Your task to perform on an android device: Go to privacy settings Image 0: 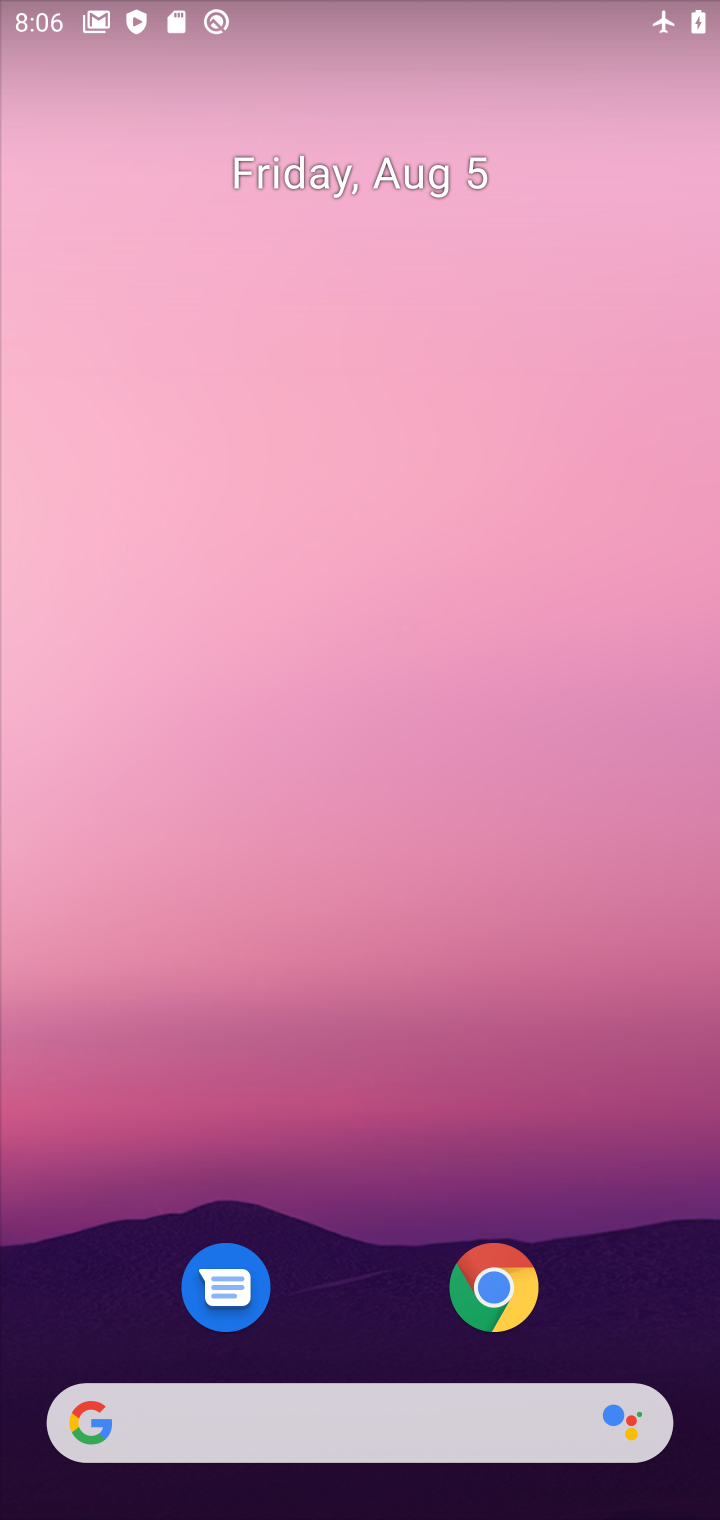
Step 0: drag from (403, 1081) to (367, 241)
Your task to perform on an android device: Go to privacy settings Image 1: 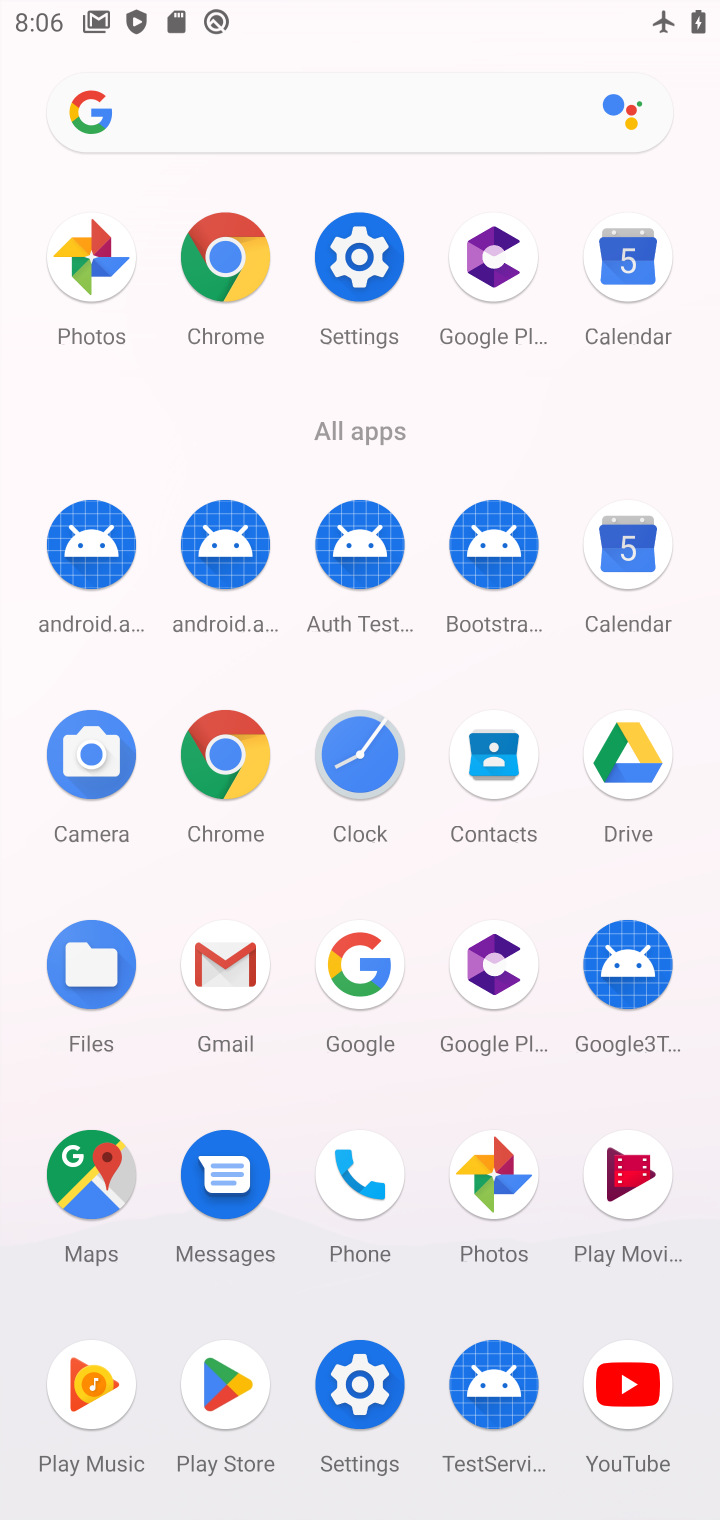
Step 1: click (346, 239)
Your task to perform on an android device: Go to privacy settings Image 2: 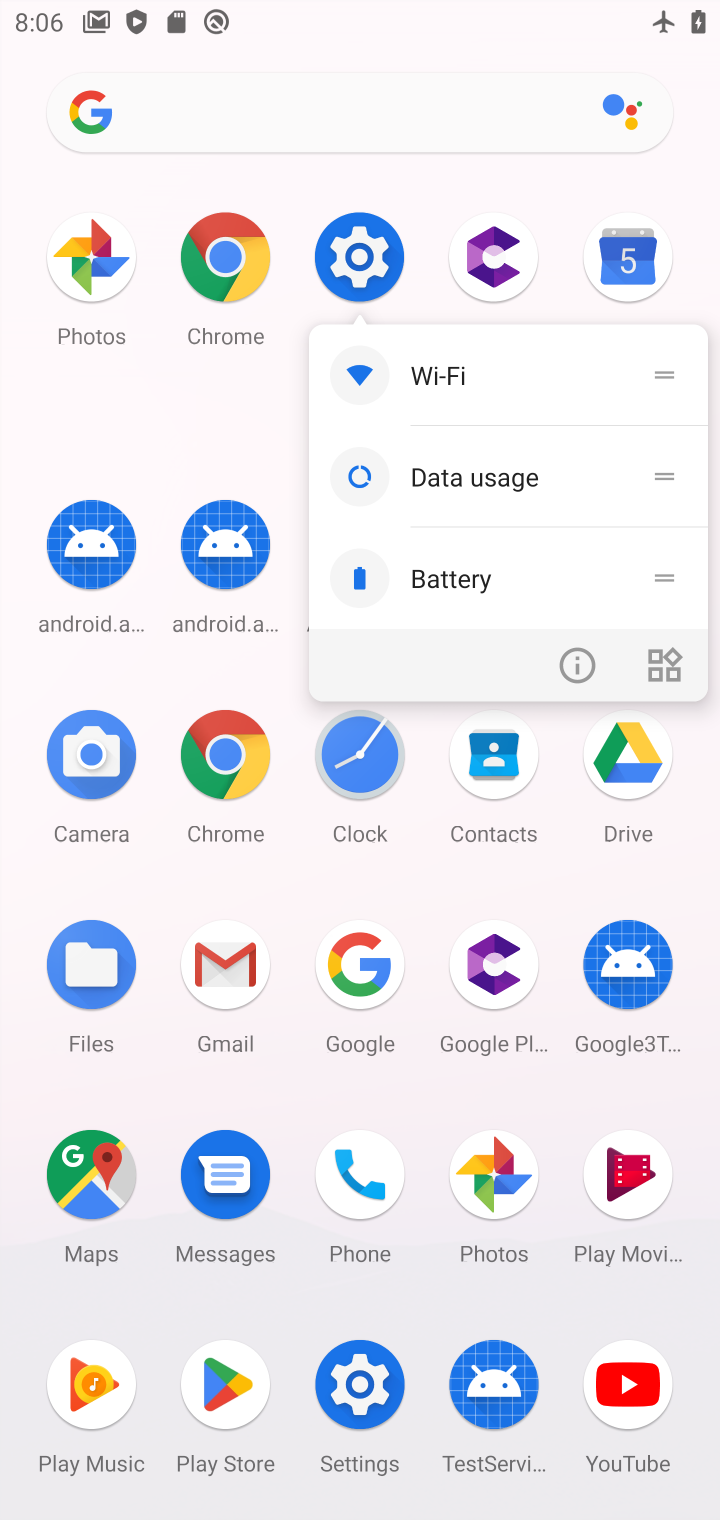
Step 2: click (352, 247)
Your task to perform on an android device: Go to privacy settings Image 3: 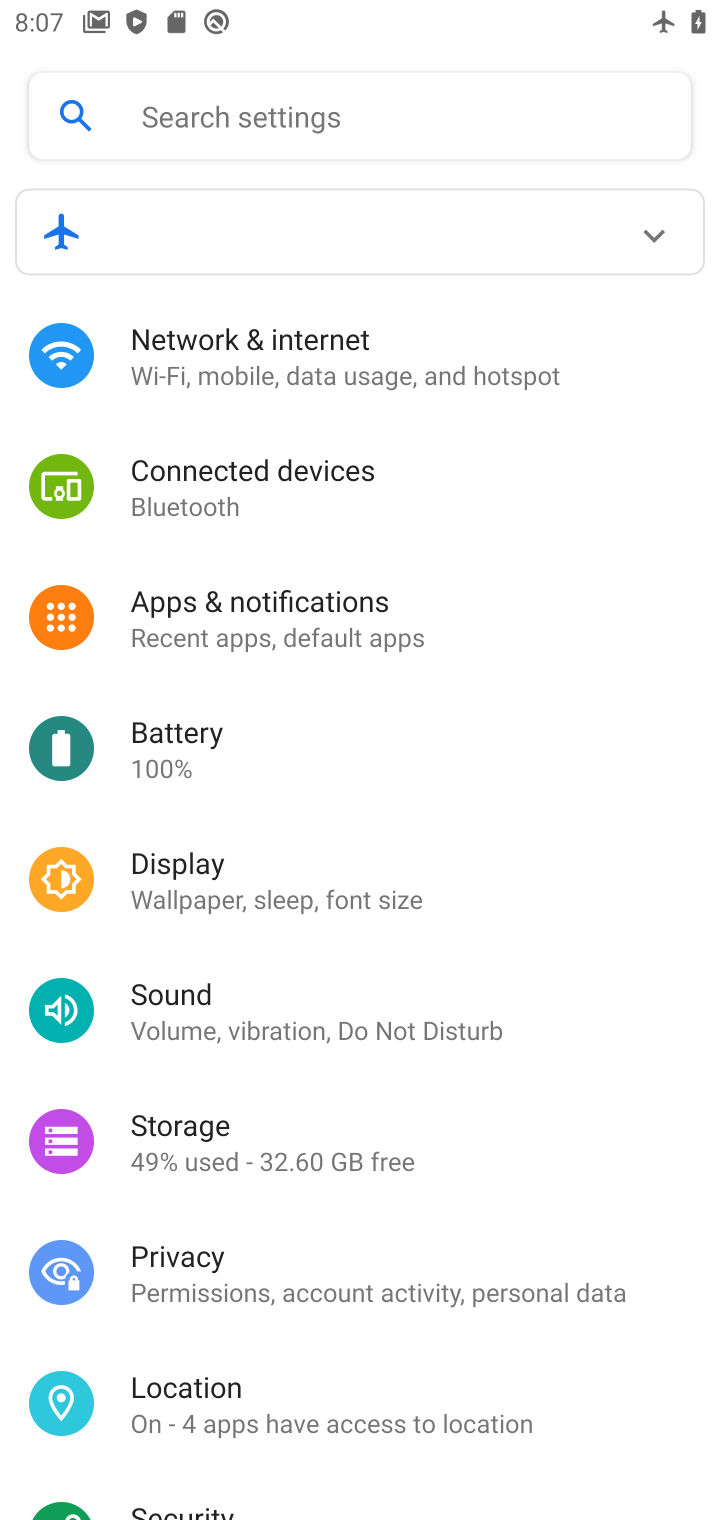
Step 3: click (187, 1292)
Your task to perform on an android device: Go to privacy settings Image 4: 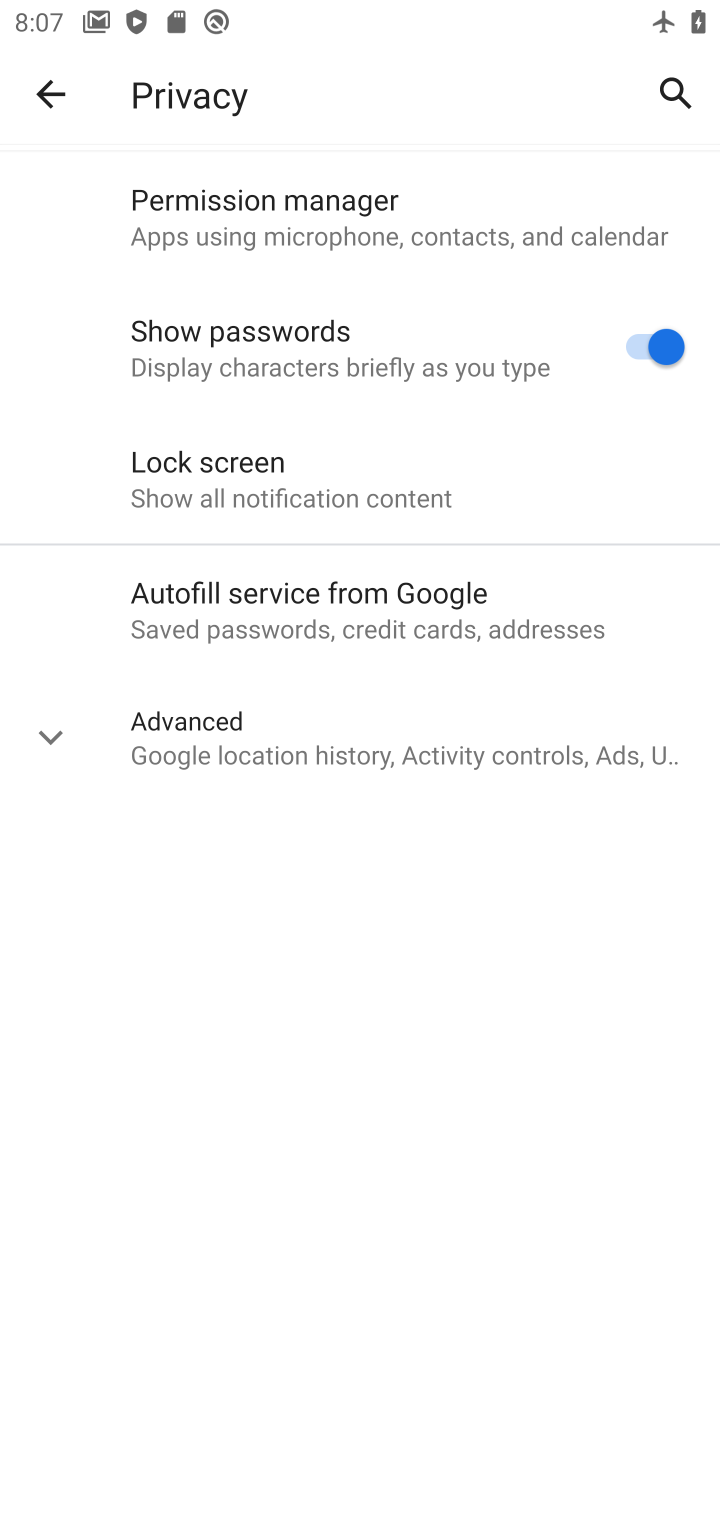
Step 4: task complete